Your task to perform on an android device: turn vacation reply on in the gmail app Image 0: 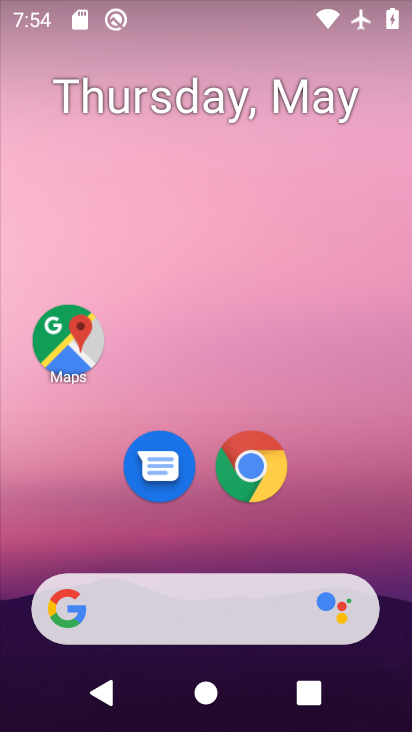
Step 0: drag from (345, 527) to (345, 216)
Your task to perform on an android device: turn vacation reply on in the gmail app Image 1: 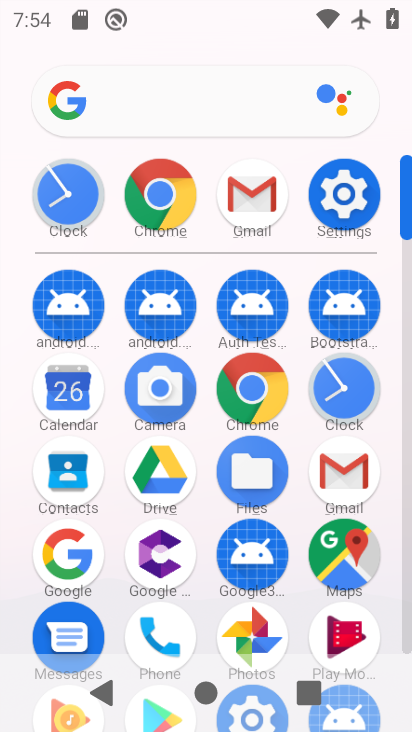
Step 1: click (364, 203)
Your task to perform on an android device: turn vacation reply on in the gmail app Image 2: 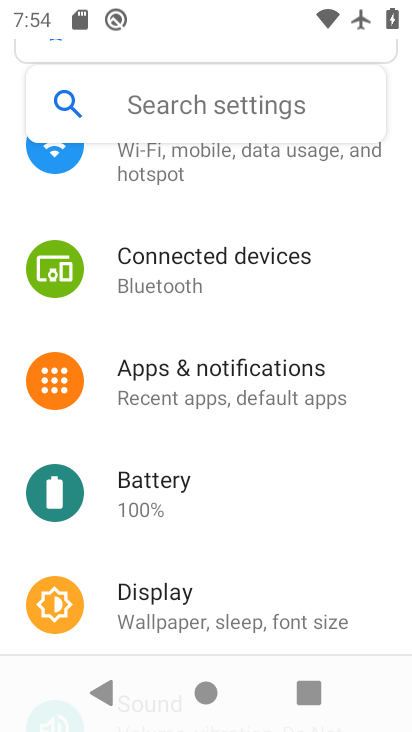
Step 2: press home button
Your task to perform on an android device: turn vacation reply on in the gmail app Image 3: 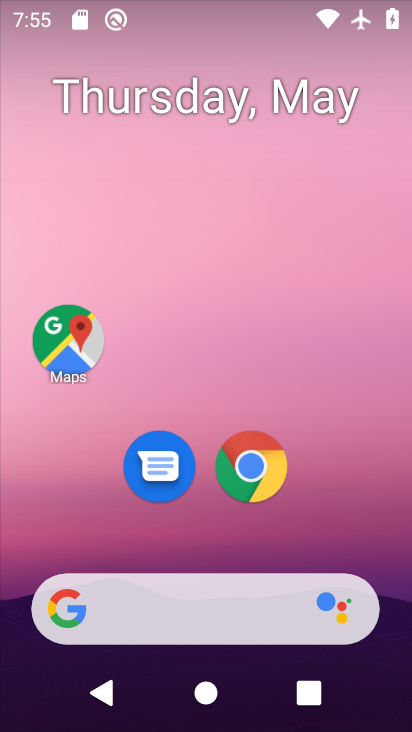
Step 3: drag from (347, 512) to (354, 44)
Your task to perform on an android device: turn vacation reply on in the gmail app Image 4: 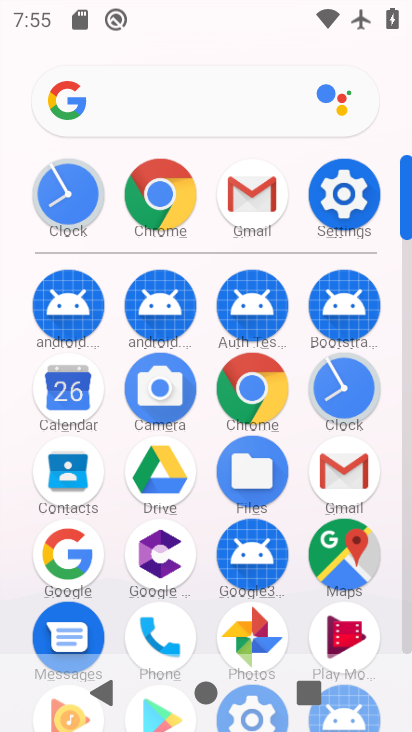
Step 4: click (237, 182)
Your task to perform on an android device: turn vacation reply on in the gmail app Image 5: 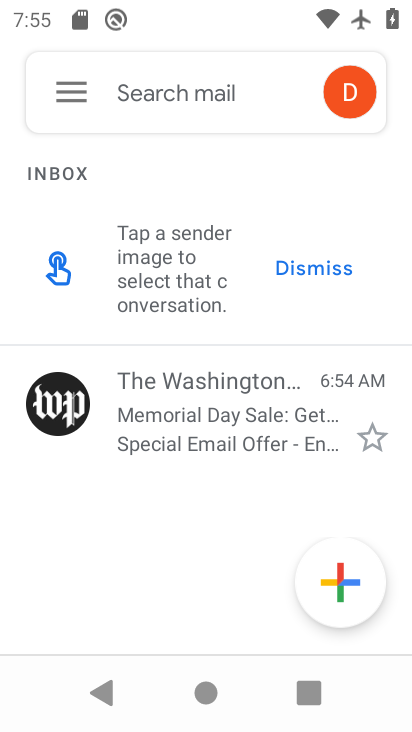
Step 5: click (65, 100)
Your task to perform on an android device: turn vacation reply on in the gmail app Image 6: 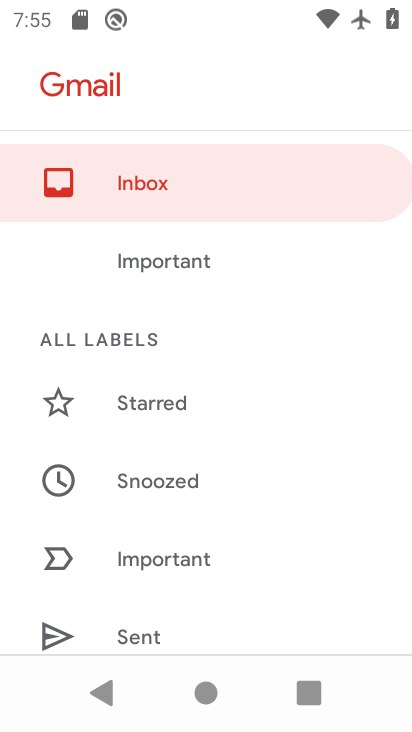
Step 6: drag from (133, 568) to (165, 143)
Your task to perform on an android device: turn vacation reply on in the gmail app Image 7: 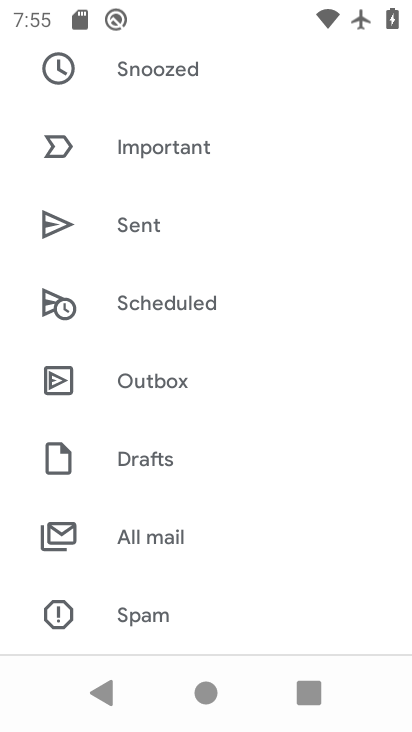
Step 7: drag from (194, 564) to (194, 169)
Your task to perform on an android device: turn vacation reply on in the gmail app Image 8: 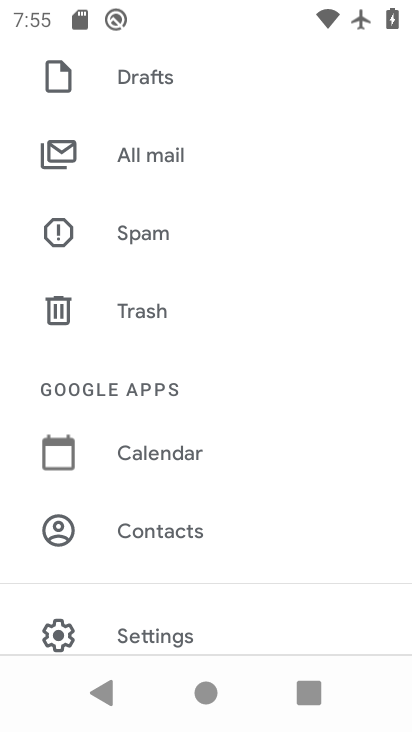
Step 8: click (198, 615)
Your task to perform on an android device: turn vacation reply on in the gmail app Image 9: 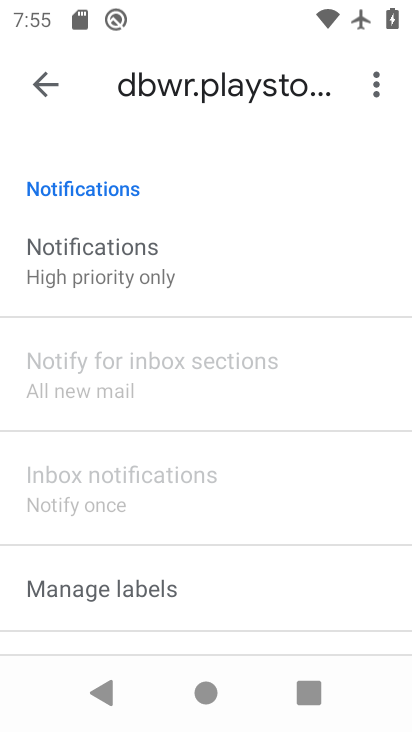
Step 9: drag from (189, 555) to (195, 283)
Your task to perform on an android device: turn vacation reply on in the gmail app Image 10: 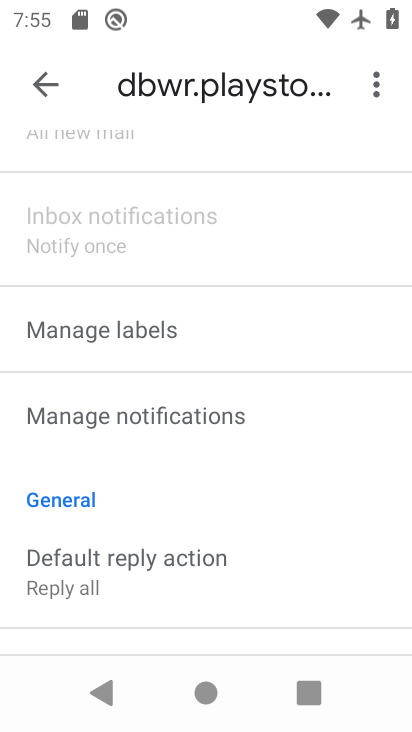
Step 10: drag from (171, 562) to (209, 159)
Your task to perform on an android device: turn vacation reply on in the gmail app Image 11: 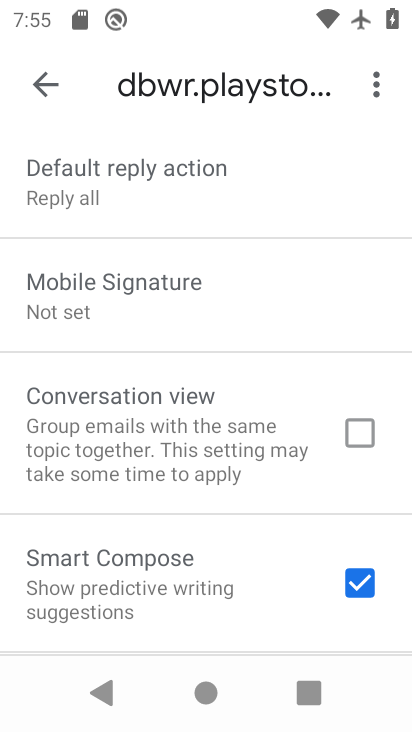
Step 11: drag from (165, 516) to (163, 360)
Your task to perform on an android device: turn vacation reply on in the gmail app Image 12: 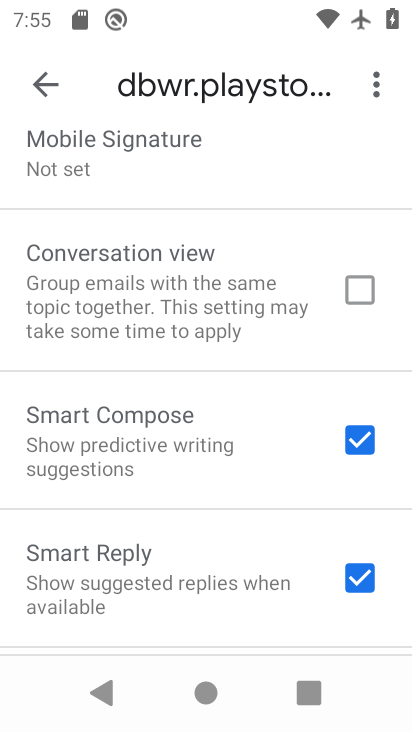
Step 12: drag from (105, 537) to (132, 282)
Your task to perform on an android device: turn vacation reply on in the gmail app Image 13: 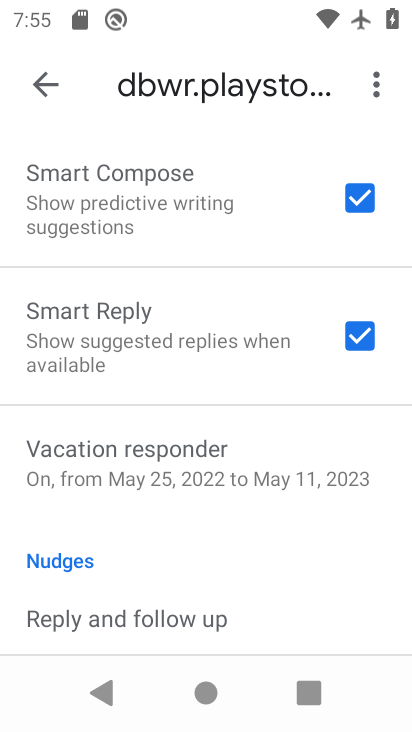
Step 13: click (195, 478)
Your task to perform on an android device: turn vacation reply on in the gmail app Image 14: 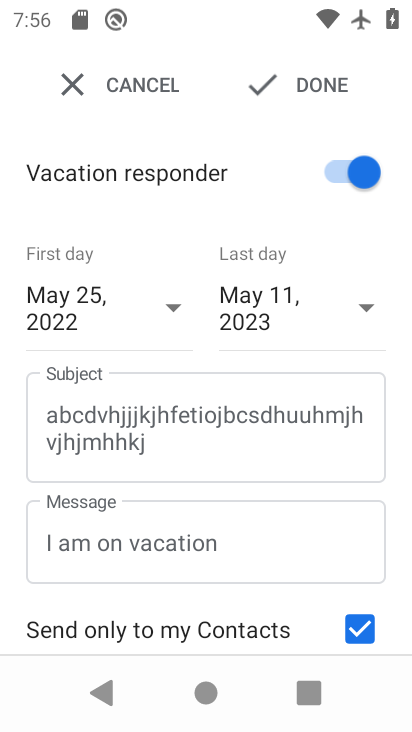
Step 14: click (340, 87)
Your task to perform on an android device: turn vacation reply on in the gmail app Image 15: 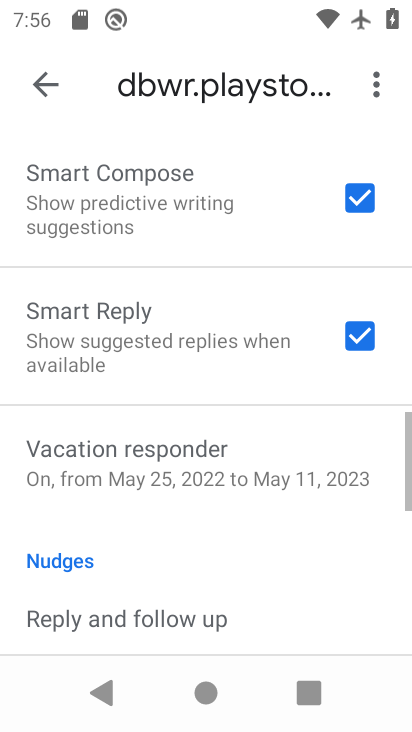
Step 15: task complete